Your task to perform on an android device: turn off improve location accuracy Image 0: 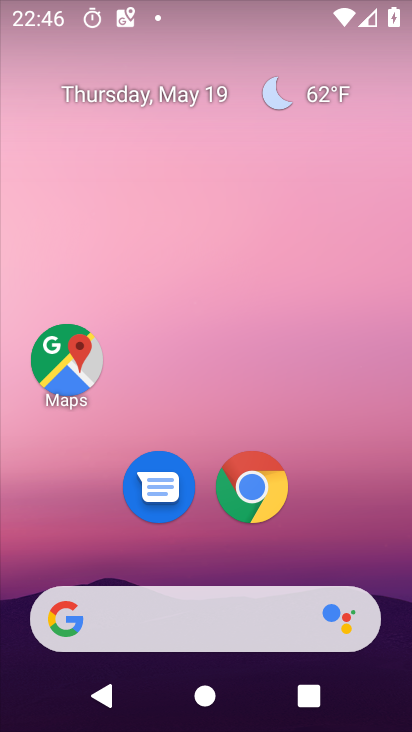
Step 0: drag from (319, 546) to (302, 149)
Your task to perform on an android device: turn off improve location accuracy Image 1: 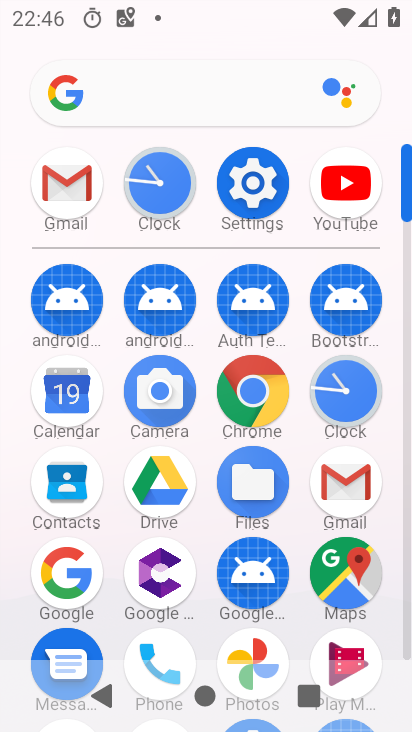
Step 1: click (248, 182)
Your task to perform on an android device: turn off improve location accuracy Image 2: 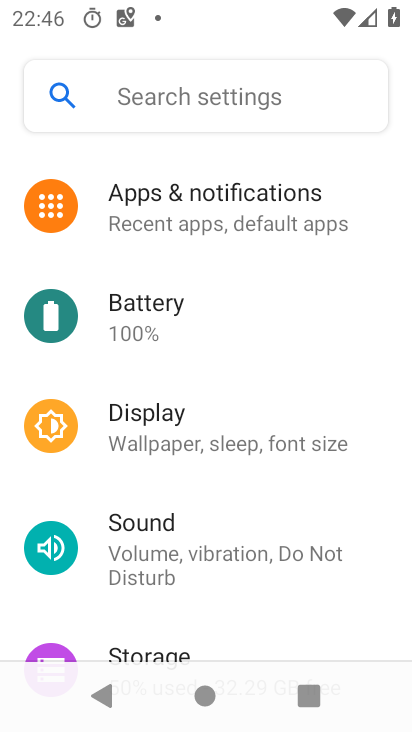
Step 2: drag from (289, 620) to (279, 395)
Your task to perform on an android device: turn off improve location accuracy Image 3: 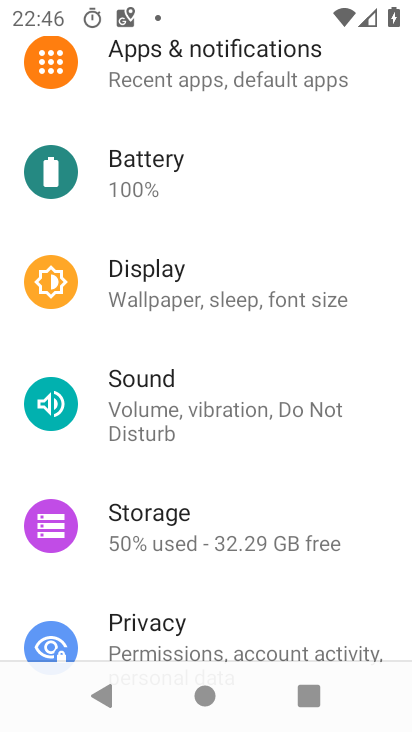
Step 3: drag from (264, 583) to (267, 308)
Your task to perform on an android device: turn off improve location accuracy Image 4: 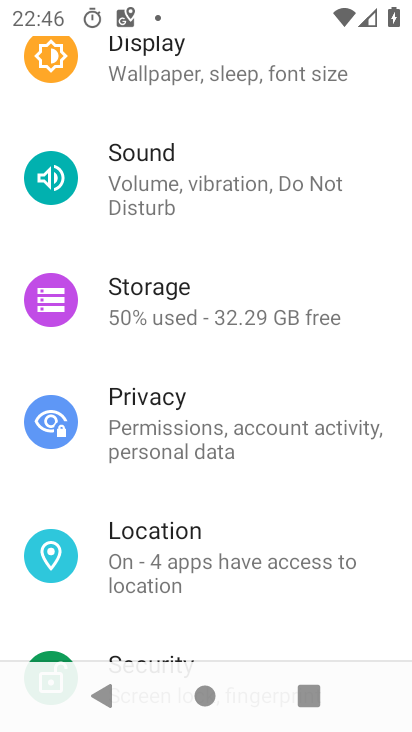
Step 4: click (219, 548)
Your task to perform on an android device: turn off improve location accuracy Image 5: 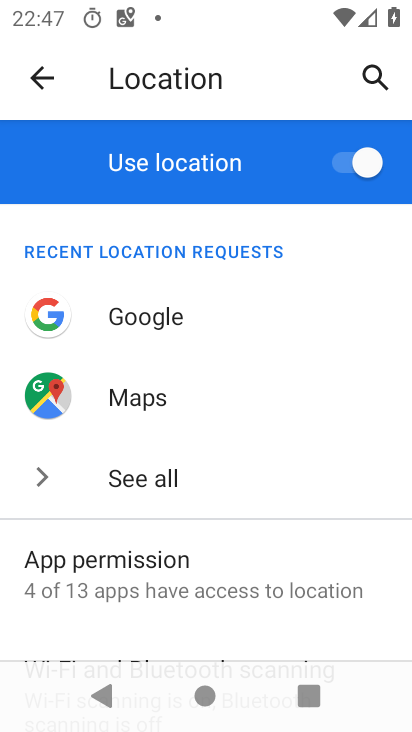
Step 5: drag from (298, 614) to (282, 360)
Your task to perform on an android device: turn off improve location accuracy Image 6: 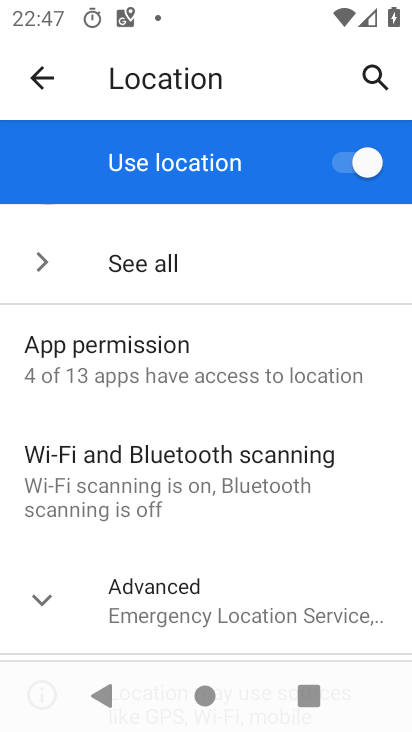
Step 6: click (258, 606)
Your task to perform on an android device: turn off improve location accuracy Image 7: 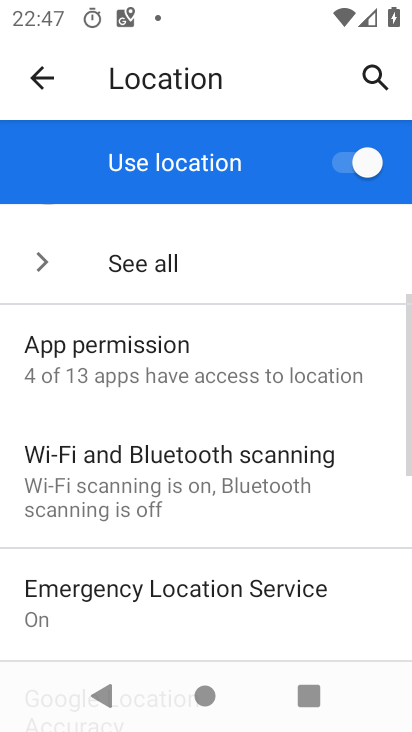
Step 7: drag from (296, 609) to (244, 326)
Your task to perform on an android device: turn off improve location accuracy Image 8: 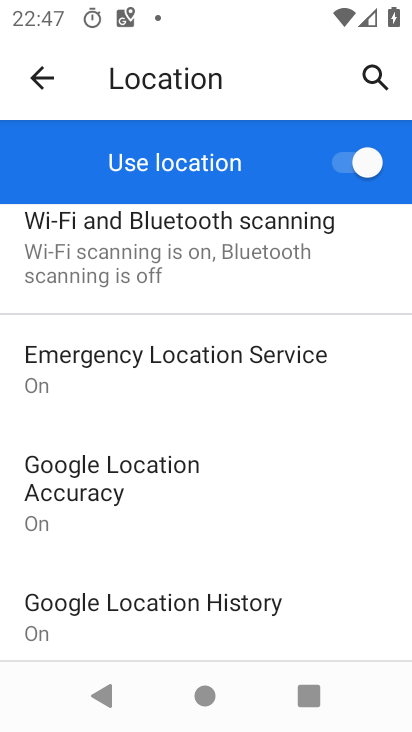
Step 8: click (130, 487)
Your task to perform on an android device: turn off improve location accuracy Image 9: 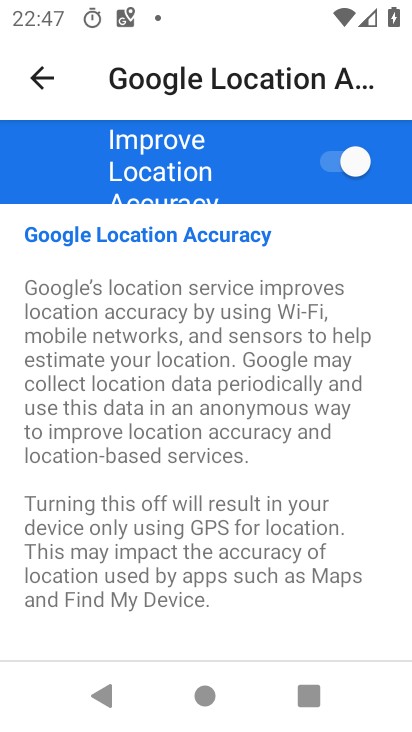
Step 9: drag from (255, 546) to (260, 331)
Your task to perform on an android device: turn off improve location accuracy Image 10: 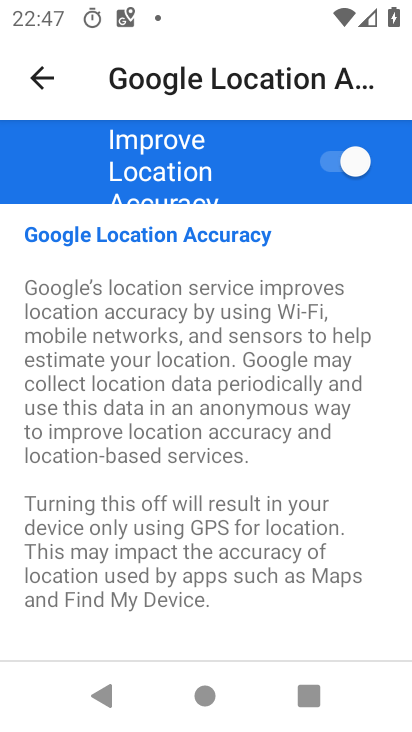
Step 10: click (332, 157)
Your task to perform on an android device: turn off improve location accuracy Image 11: 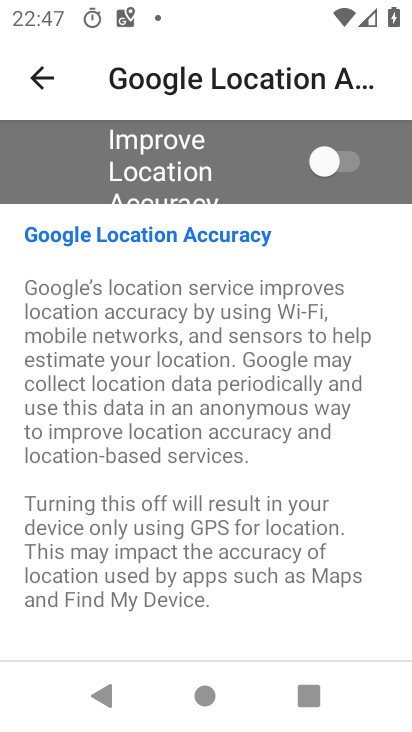
Step 11: task complete